Your task to perform on an android device: change the clock display to analog Image 0: 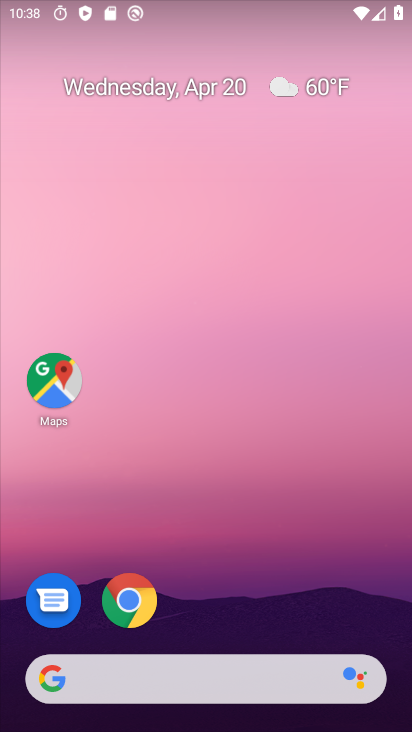
Step 0: drag from (232, 633) to (192, 136)
Your task to perform on an android device: change the clock display to analog Image 1: 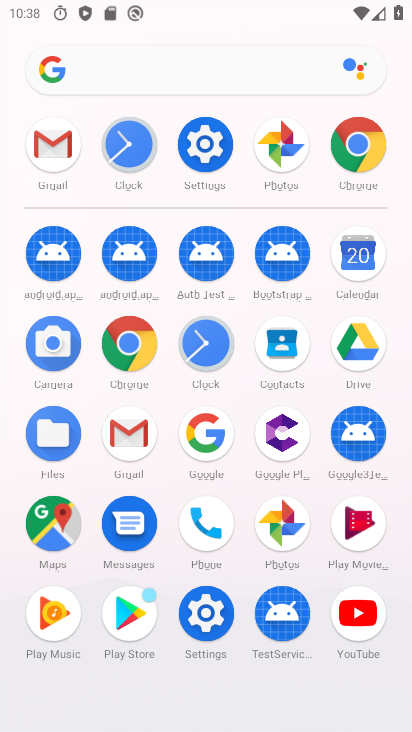
Step 1: click (138, 161)
Your task to perform on an android device: change the clock display to analog Image 2: 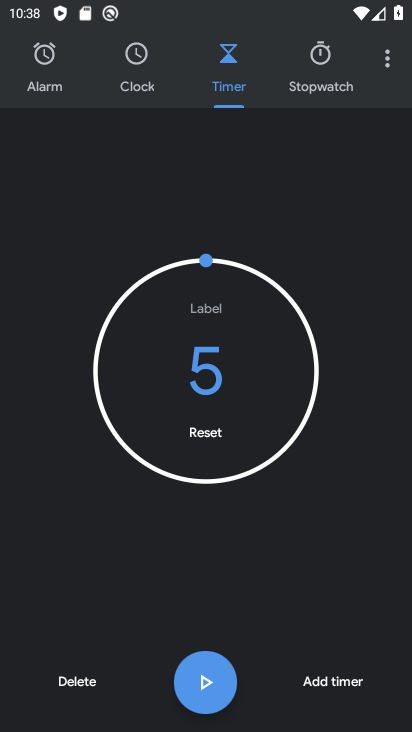
Step 2: click (401, 60)
Your task to perform on an android device: change the clock display to analog Image 3: 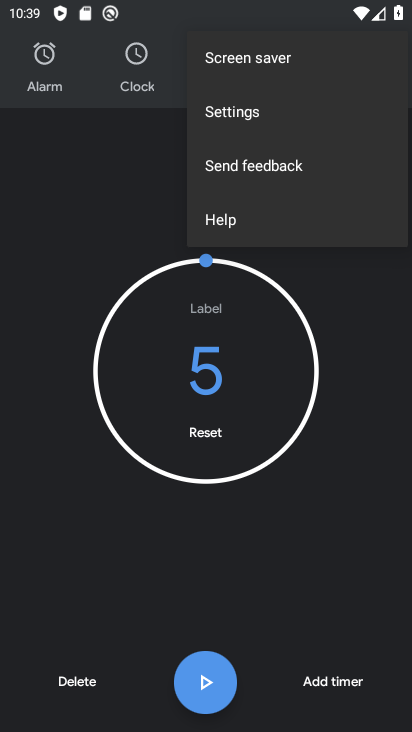
Step 3: click (255, 107)
Your task to perform on an android device: change the clock display to analog Image 4: 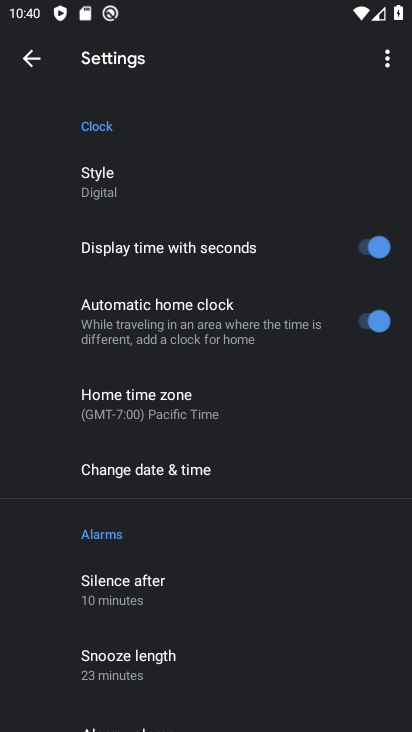
Step 4: click (177, 195)
Your task to perform on an android device: change the clock display to analog Image 5: 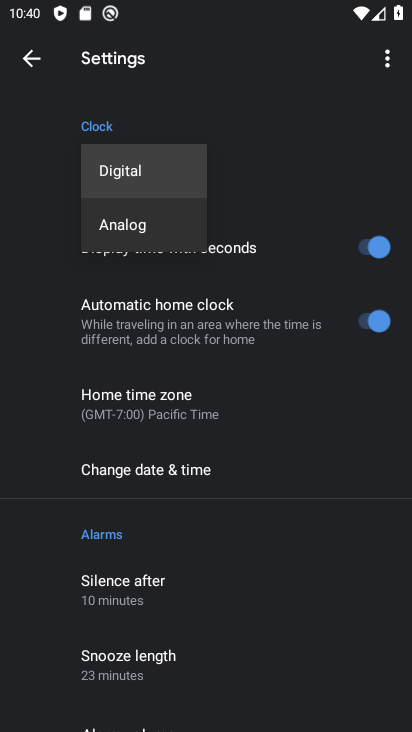
Step 5: click (133, 204)
Your task to perform on an android device: change the clock display to analog Image 6: 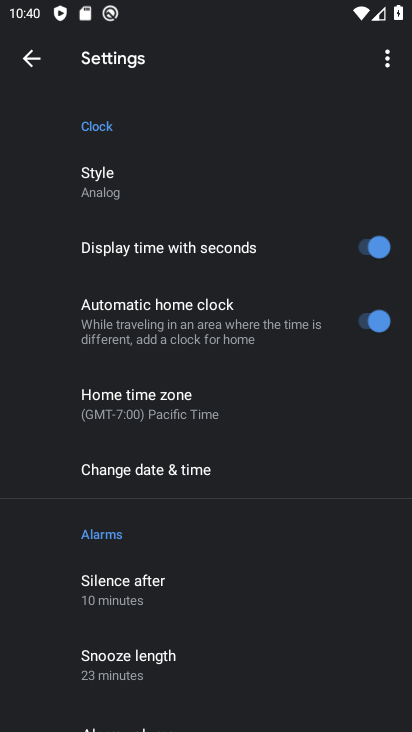
Step 6: task complete